Your task to perform on an android device: toggle airplane mode Image 0: 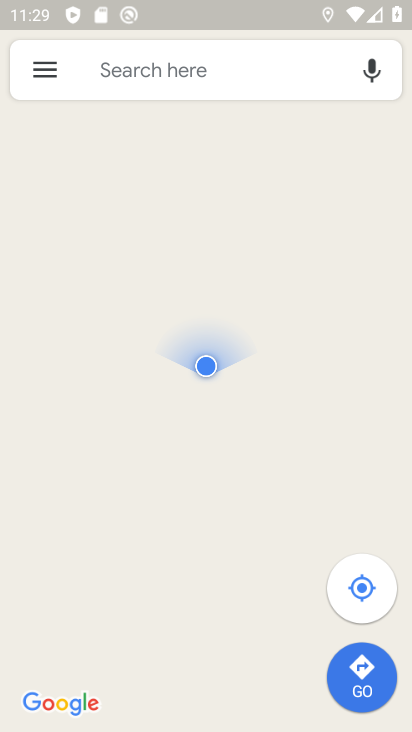
Step 0: press home button
Your task to perform on an android device: toggle airplane mode Image 1: 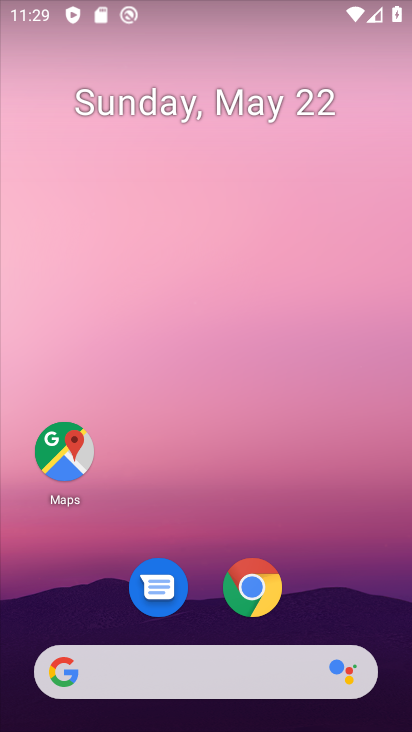
Step 1: drag from (190, 630) to (127, 11)
Your task to perform on an android device: toggle airplane mode Image 2: 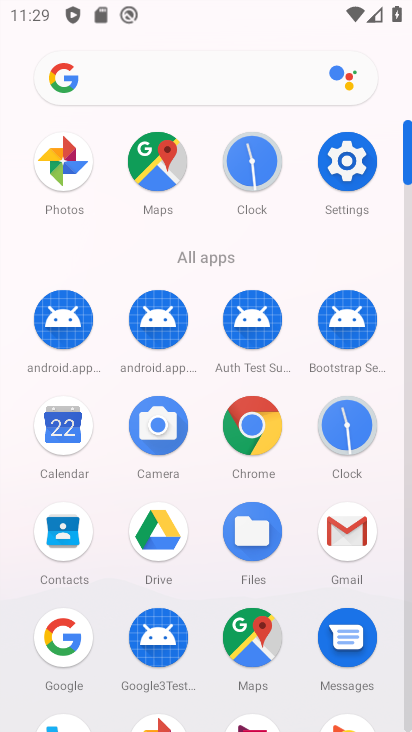
Step 2: click (357, 167)
Your task to perform on an android device: toggle airplane mode Image 3: 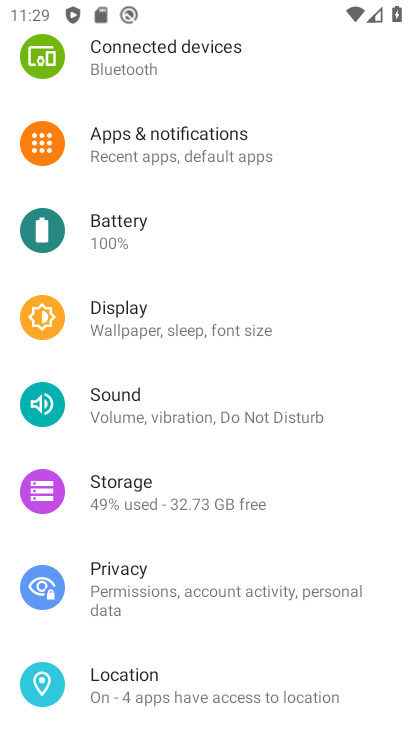
Step 3: drag from (92, 119) to (34, 606)
Your task to perform on an android device: toggle airplane mode Image 4: 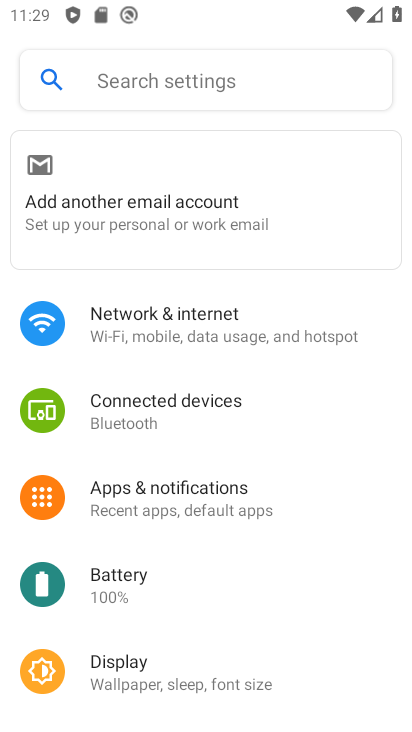
Step 4: click (121, 332)
Your task to perform on an android device: toggle airplane mode Image 5: 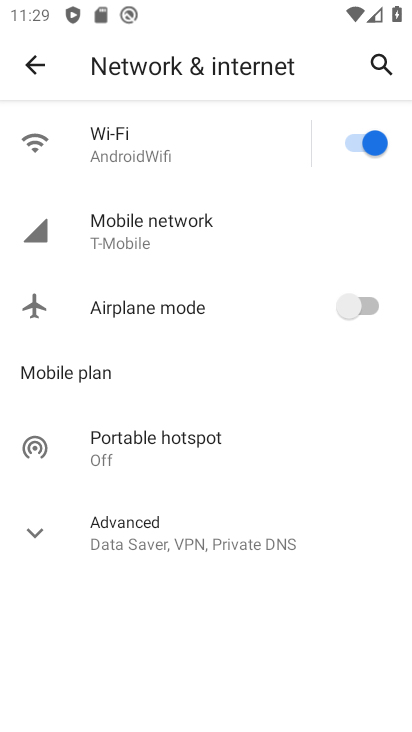
Step 5: click (345, 319)
Your task to perform on an android device: toggle airplane mode Image 6: 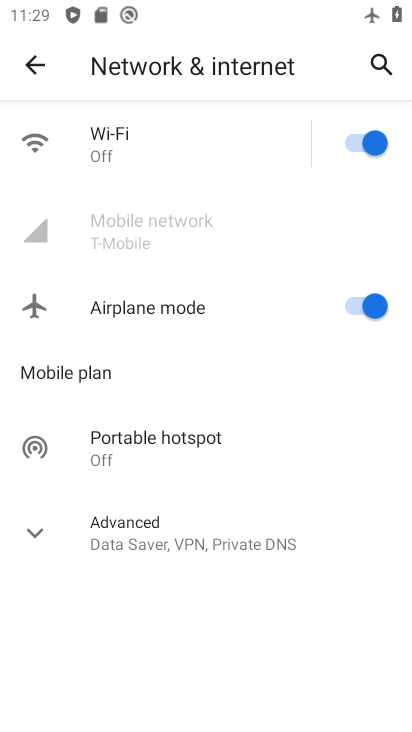
Step 6: task complete